Your task to perform on an android device: set an alarm Image 0: 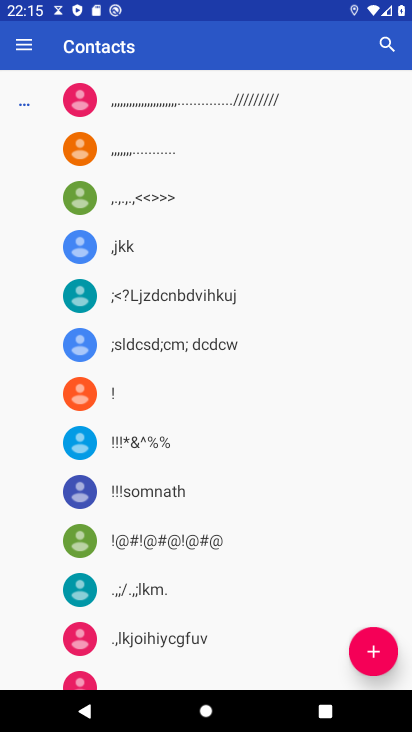
Step 0: press home button
Your task to perform on an android device: set an alarm Image 1: 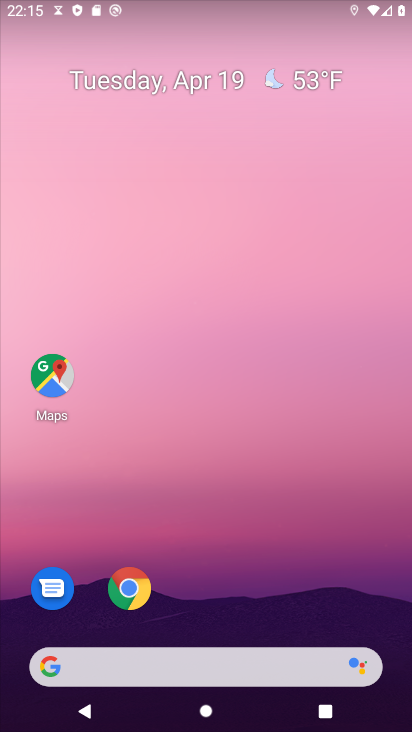
Step 1: drag from (239, 596) to (284, 29)
Your task to perform on an android device: set an alarm Image 2: 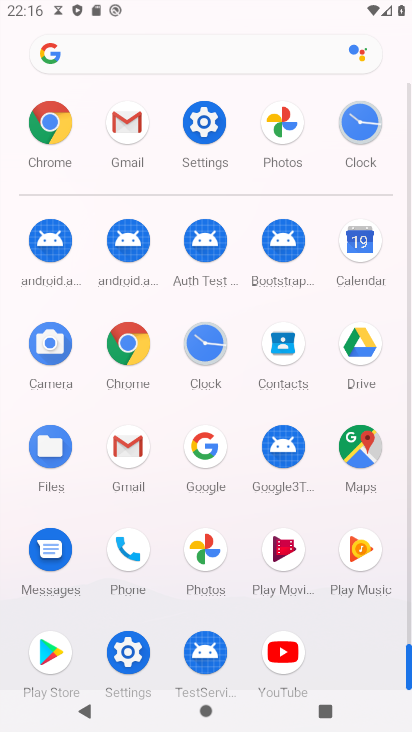
Step 2: click (357, 128)
Your task to perform on an android device: set an alarm Image 3: 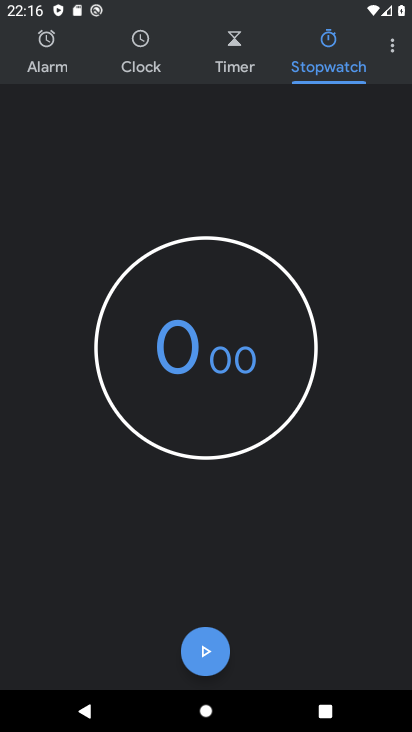
Step 3: click (45, 45)
Your task to perform on an android device: set an alarm Image 4: 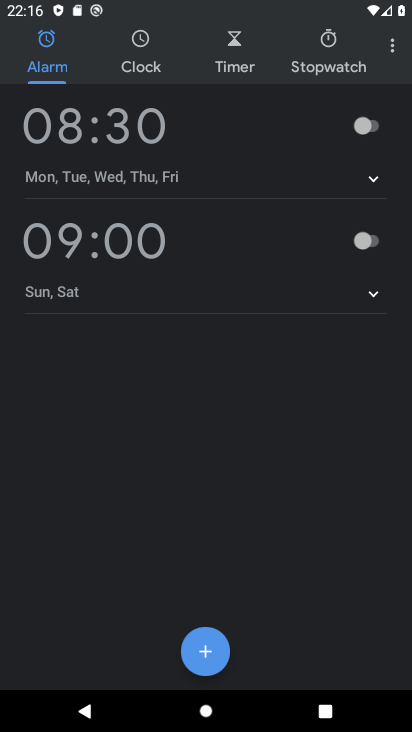
Step 4: click (203, 654)
Your task to perform on an android device: set an alarm Image 5: 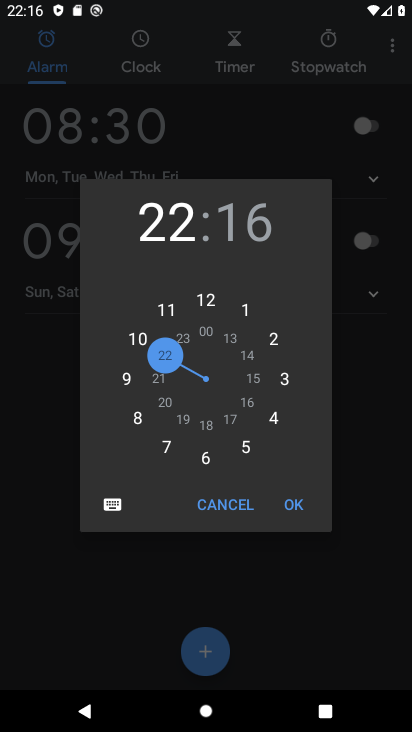
Step 5: drag from (169, 363) to (185, 428)
Your task to perform on an android device: set an alarm Image 6: 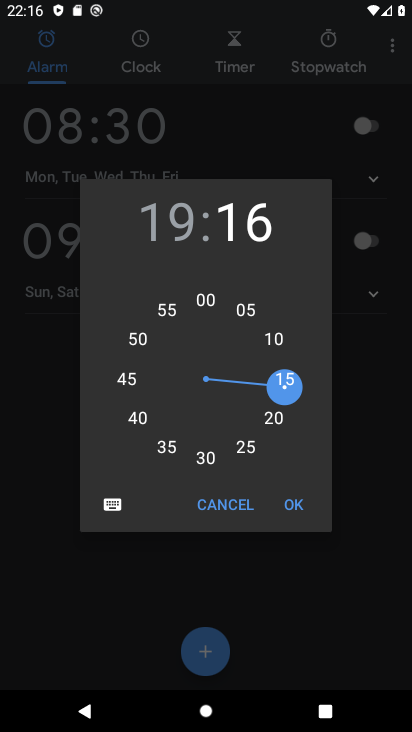
Step 6: click (250, 238)
Your task to perform on an android device: set an alarm Image 7: 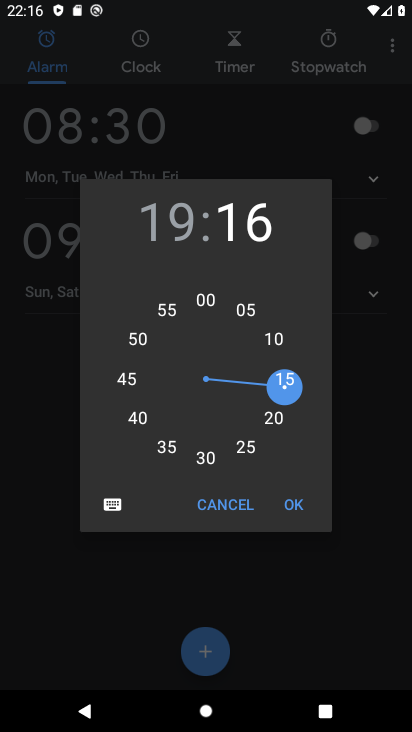
Step 7: drag from (285, 384) to (244, 317)
Your task to perform on an android device: set an alarm Image 8: 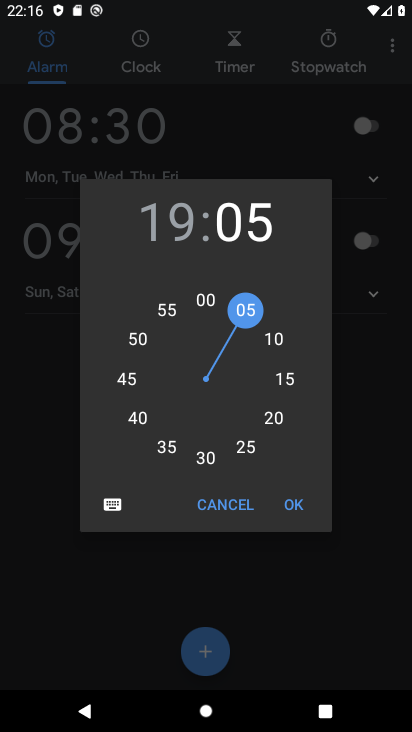
Step 8: click (294, 499)
Your task to perform on an android device: set an alarm Image 9: 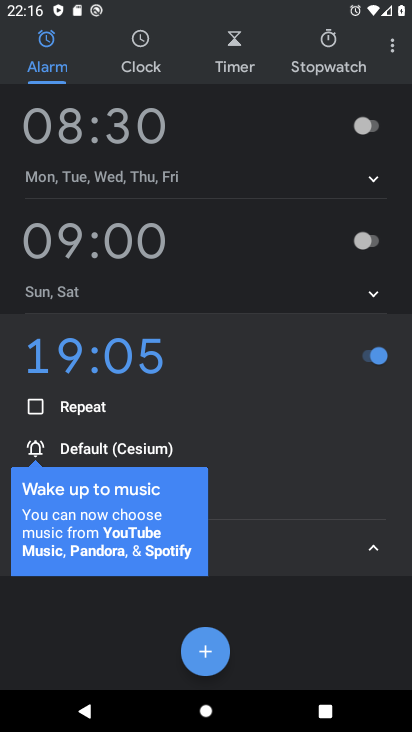
Step 9: click (372, 548)
Your task to perform on an android device: set an alarm Image 10: 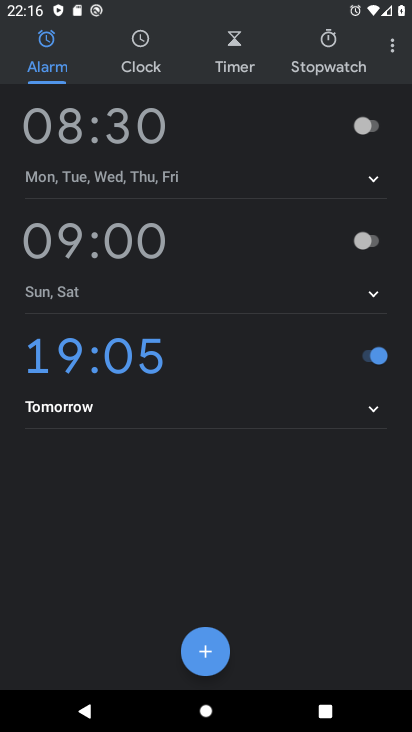
Step 10: task complete